Your task to perform on an android device: Go to settings Image 0: 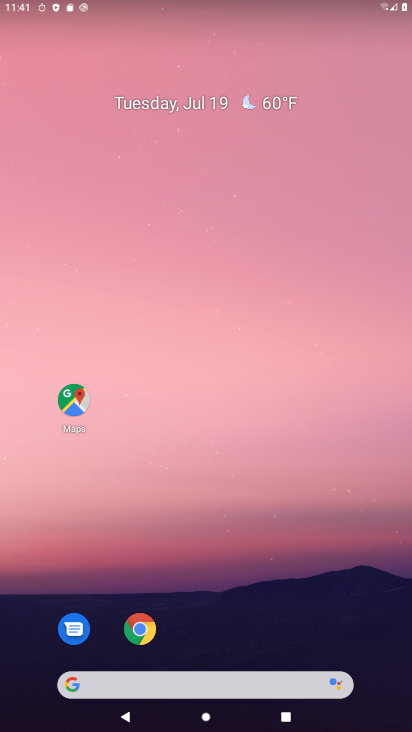
Step 0: drag from (212, 637) to (279, 157)
Your task to perform on an android device: Go to settings Image 1: 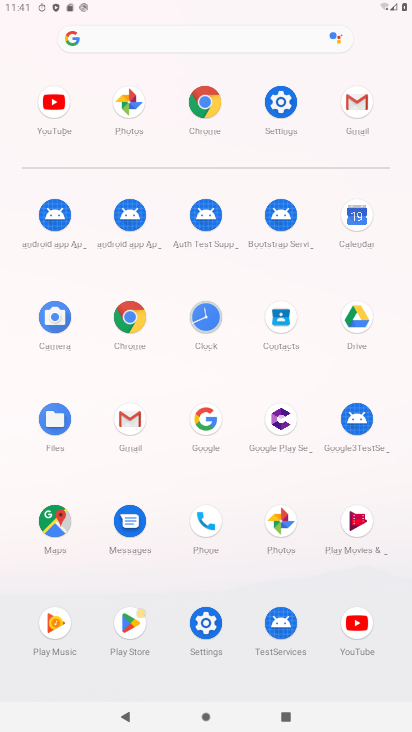
Step 1: click (283, 107)
Your task to perform on an android device: Go to settings Image 2: 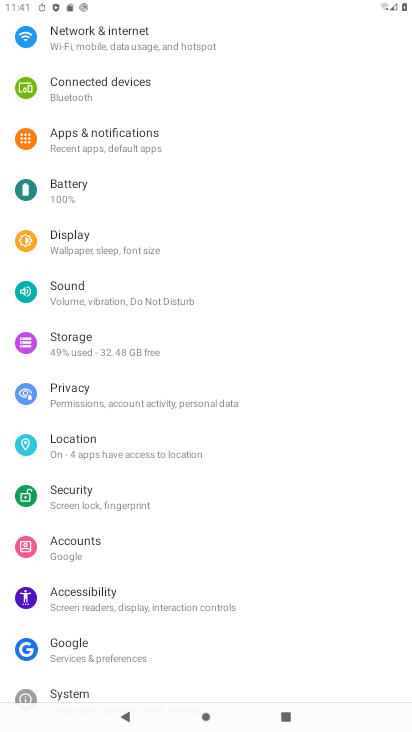
Step 2: task complete